Your task to perform on an android device: turn on notifications settings in the gmail app Image 0: 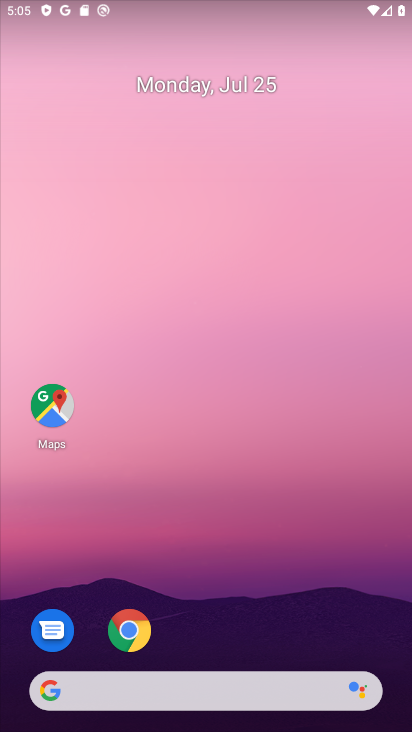
Step 0: press home button
Your task to perform on an android device: turn on notifications settings in the gmail app Image 1: 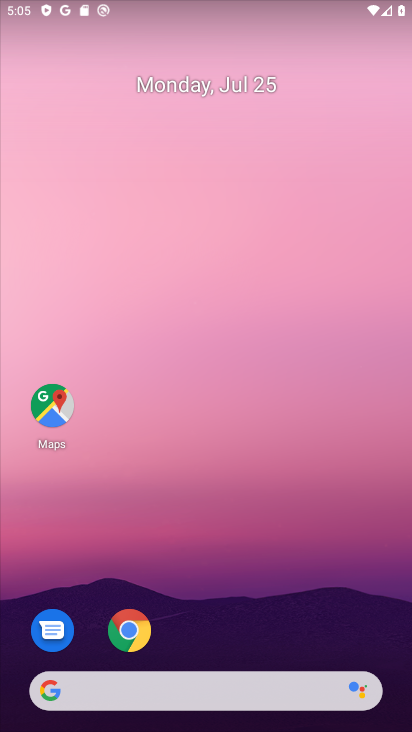
Step 1: drag from (216, 653) to (216, 36)
Your task to perform on an android device: turn on notifications settings in the gmail app Image 2: 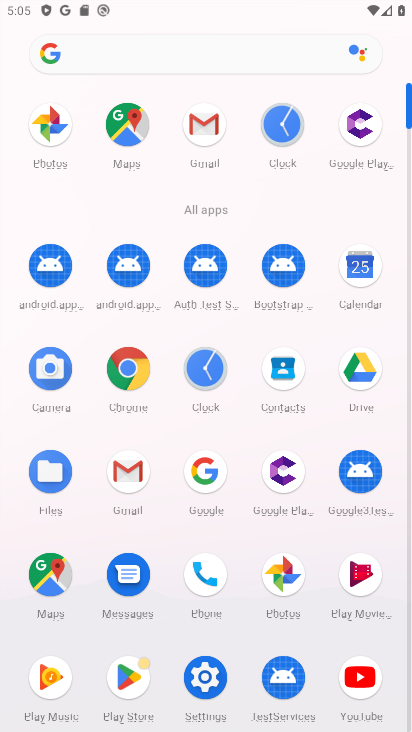
Step 2: click (124, 470)
Your task to perform on an android device: turn on notifications settings in the gmail app Image 3: 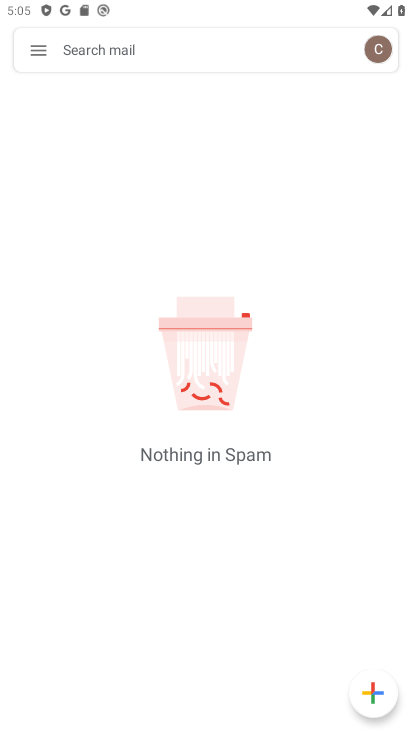
Step 3: task complete